Your task to perform on an android device: Open Yahoo.com Image 0: 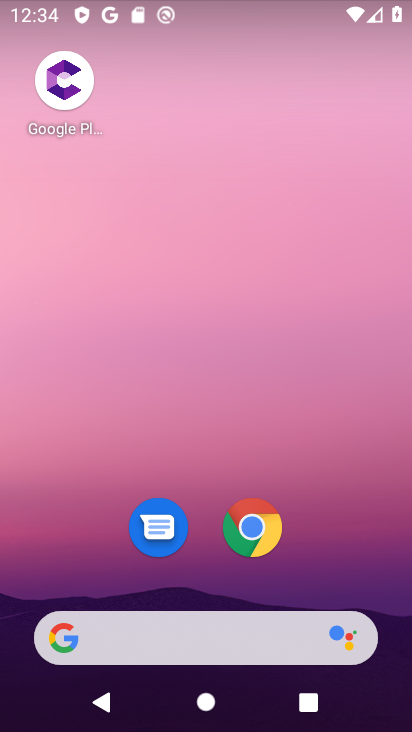
Step 0: drag from (224, 637) to (264, 215)
Your task to perform on an android device: Open Yahoo.com Image 1: 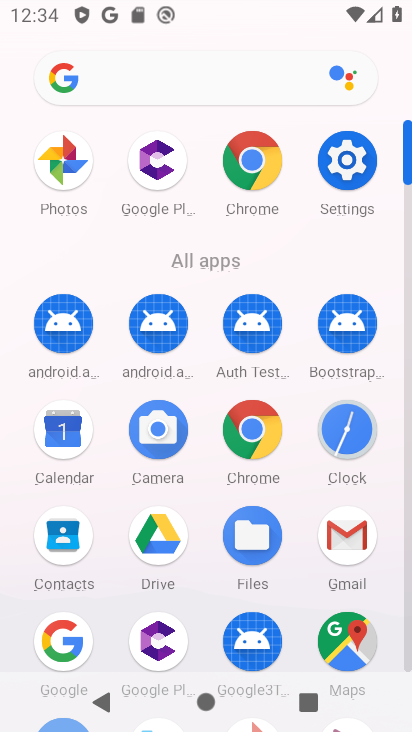
Step 1: click (242, 163)
Your task to perform on an android device: Open Yahoo.com Image 2: 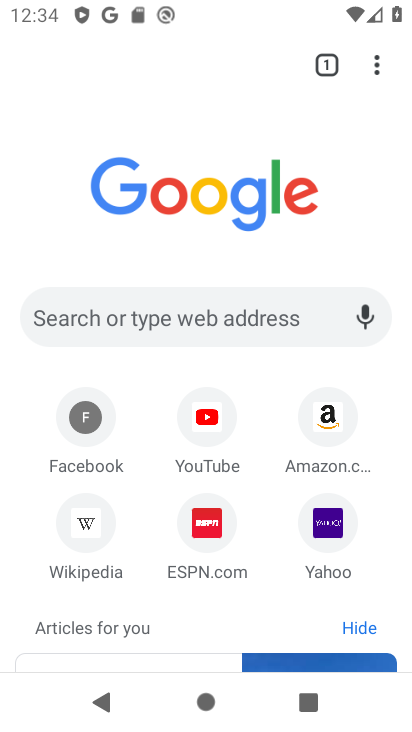
Step 2: click (195, 303)
Your task to perform on an android device: Open Yahoo.com Image 3: 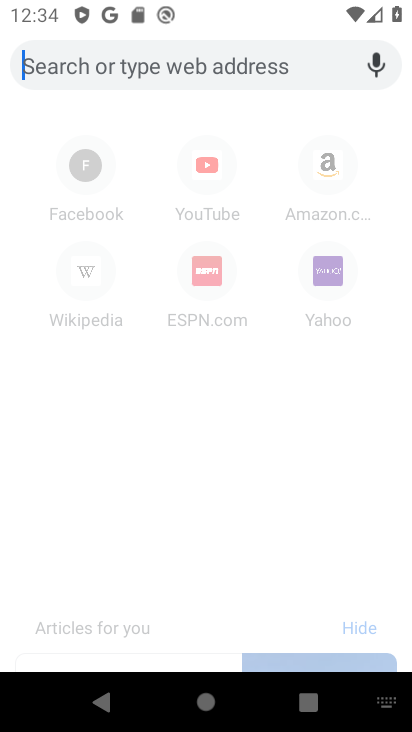
Step 3: press back button
Your task to perform on an android device: Open Yahoo.com Image 4: 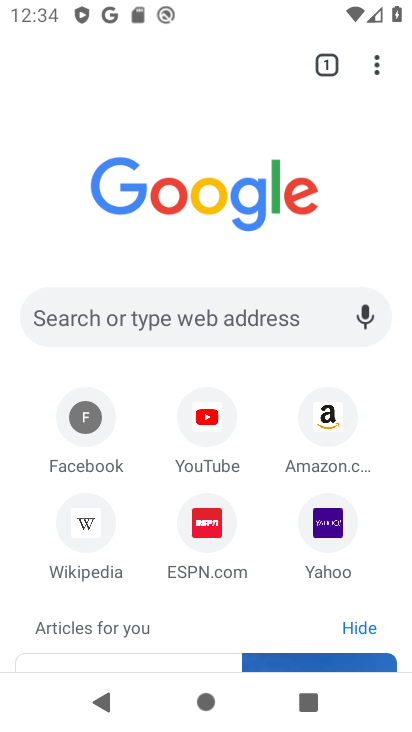
Step 4: click (343, 532)
Your task to perform on an android device: Open Yahoo.com Image 5: 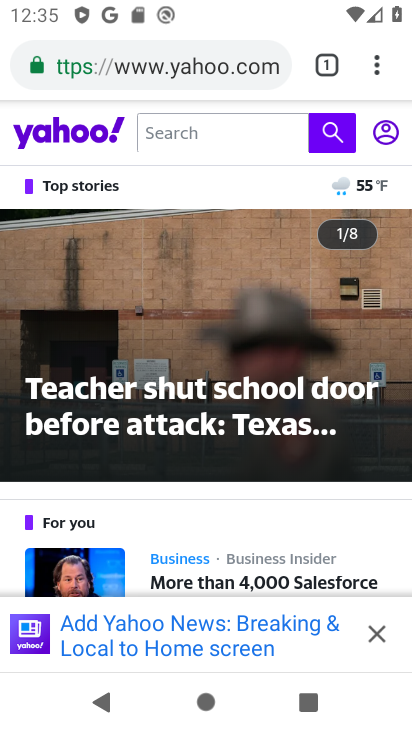
Step 5: task complete